Your task to perform on an android device: Search for vegetarian restaurants on Maps Image 0: 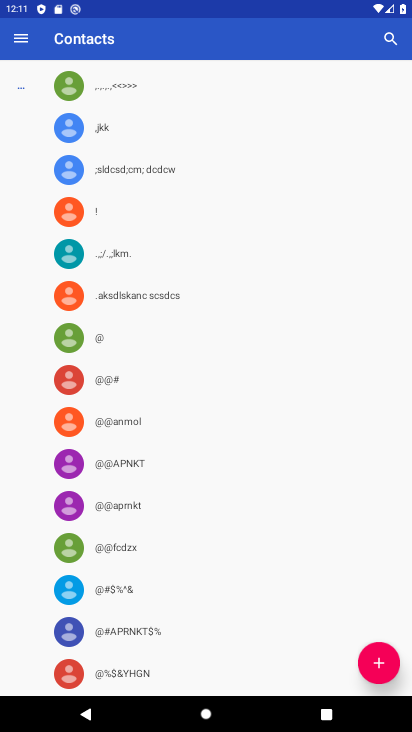
Step 0: press home button
Your task to perform on an android device: Search for vegetarian restaurants on Maps Image 1: 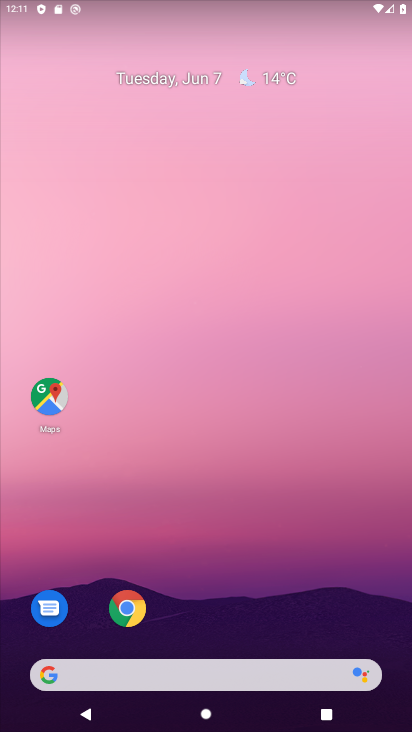
Step 1: click (5, 418)
Your task to perform on an android device: Search for vegetarian restaurants on Maps Image 2: 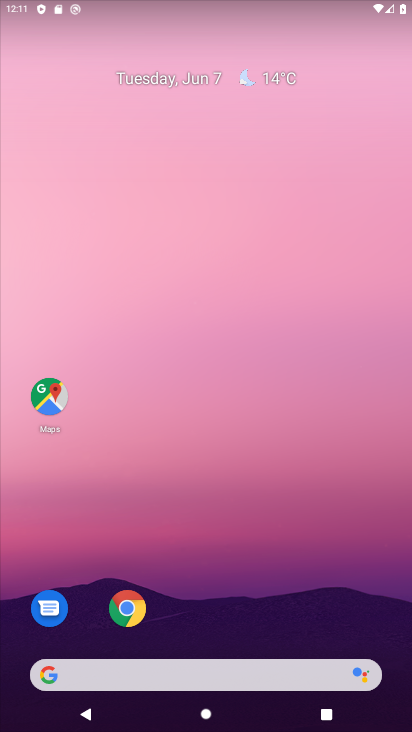
Step 2: click (53, 401)
Your task to perform on an android device: Search for vegetarian restaurants on Maps Image 3: 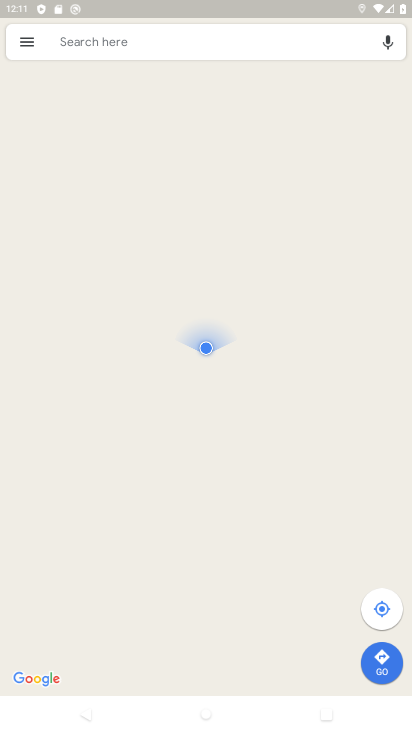
Step 3: click (140, 43)
Your task to perform on an android device: Search for vegetarian restaurants on Maps Image 4: 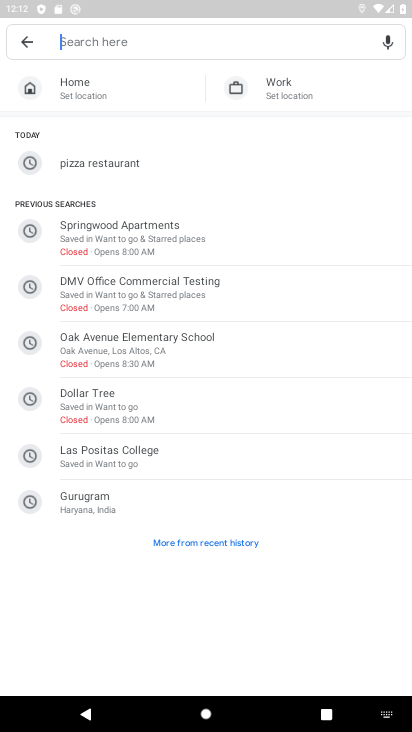
Step 4: type "Vegetarian restaurants"
Your task to perform on an android device: Search for vegetarian restaurants on Maps Image 5: 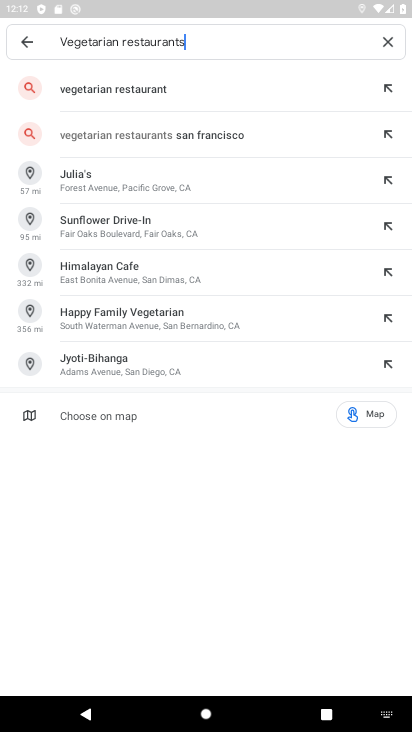
Step 5: click (164, 85)
Your task to perform on an android device: Search for vegetarian restaurants on Maps Image 6: 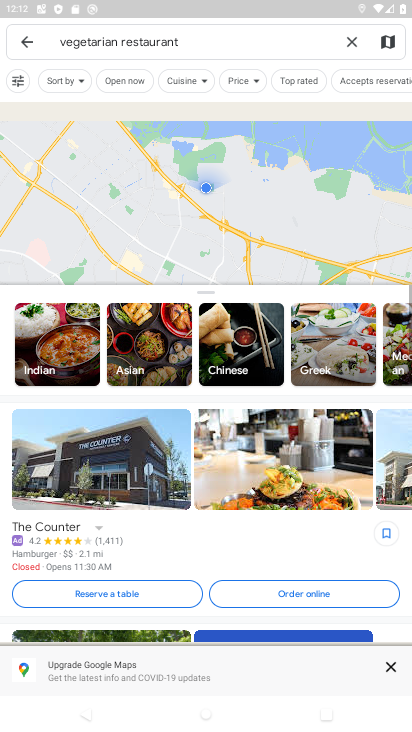
Step 6: task complete